Your task to perform on an android device: check the backup settings in the google photos Image 0: 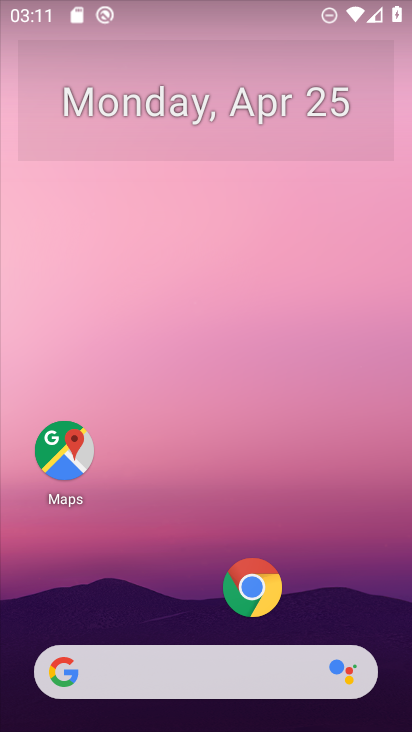
Step 0: drag from (190, 626) to (250, 13)
Your task to perform on an android device: check the backup settings in the google photos Image 1: 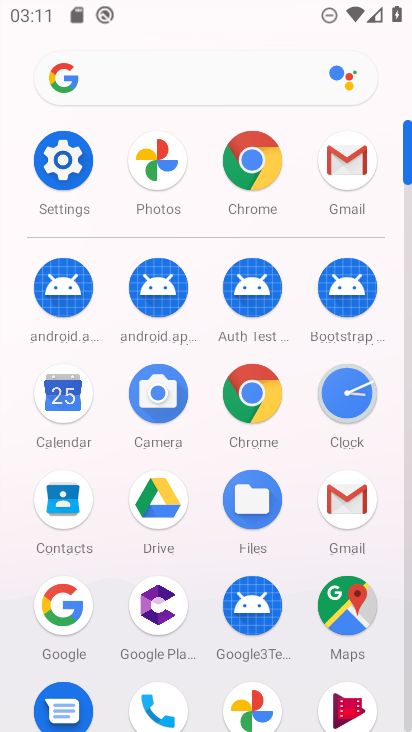
Step 1: click (255, 697)
Your task to perform on an android device: check the backup settings in the google photos Image 2: 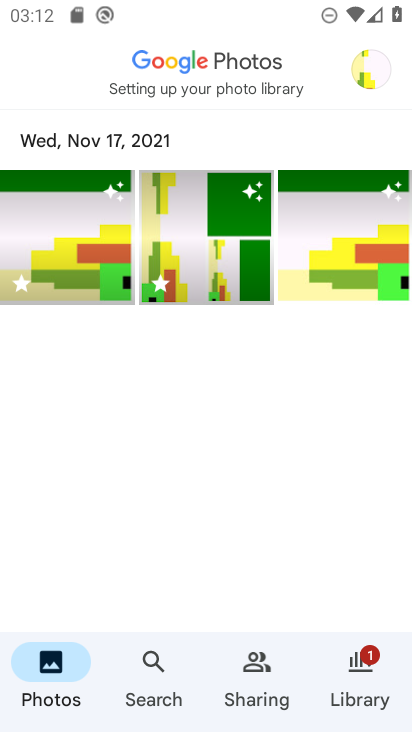
Step 2: click (369, 74)
Your task to perform on an android device: check the backup settings in the google photos Image 3: 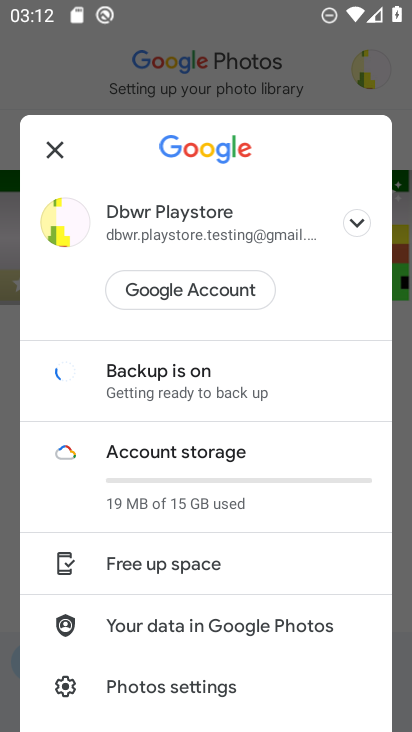
Step 3: click (237, 375)
Your task to perform on an android device: check the backup settings in the google photos Image 4: 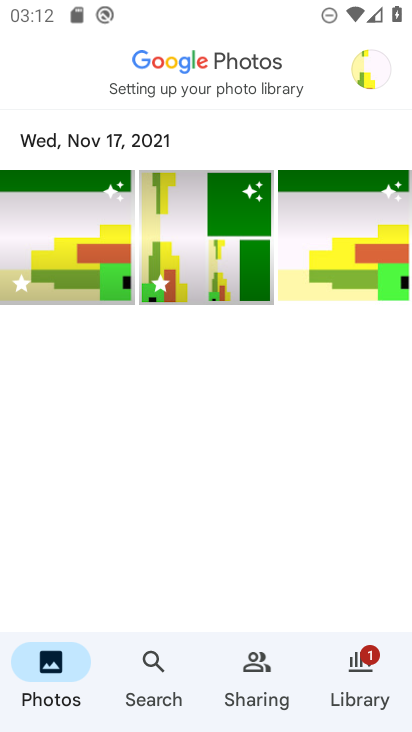
Step 4: click (364, 62)
Your task to perform on an android device: check the backup settings in the google photos Image 5: 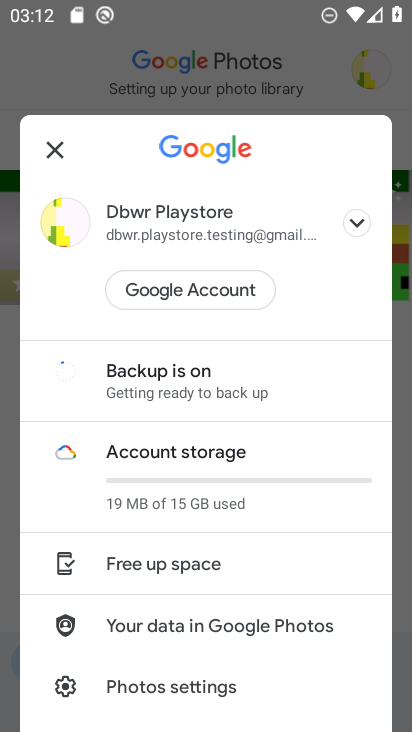
Step 5: click (189, 378)
Your task to perform on an android device: check the backup settings in the google photos Image 6: 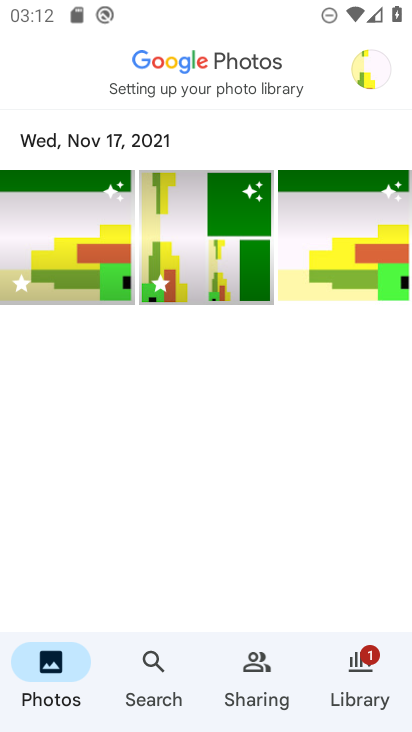
Step 6: click (371, 59)
Your task to perform on an android device: check the backup settings in the google photos Image 7: 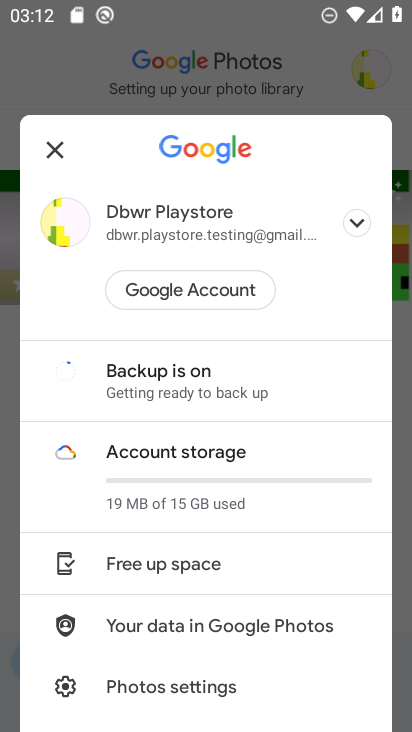
Step 7: click (236, 680)
Your task to perform on an android device: check the backup settings in the google photos Image 8: 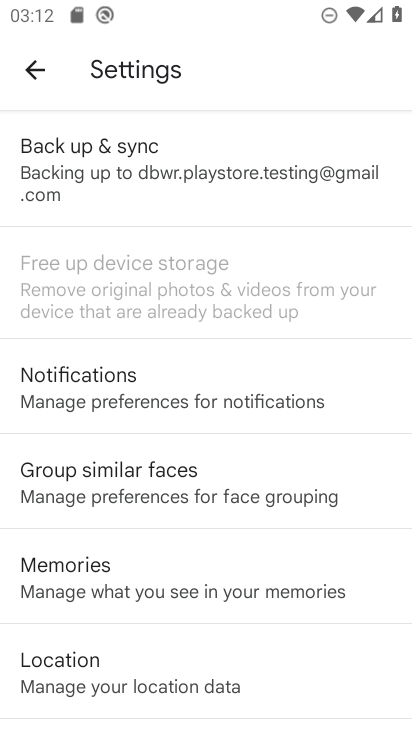
Step 8: click (176, 175)
Your task to perform on an android device: check the backup settings in the google photos Image 9: 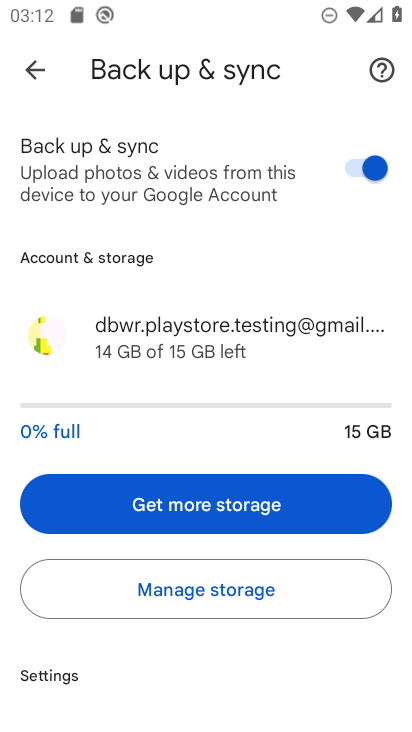
Step 9: task complete